Your task to perform on an android device: turn off location history Image 0: 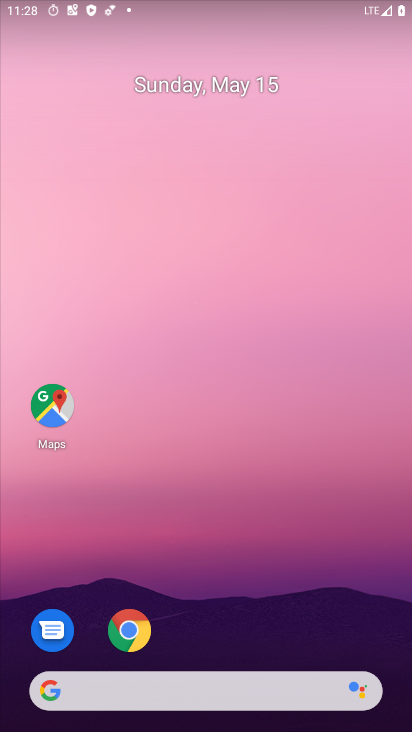
Step 0: drag from (222, 610) to (328, 100)
Your task to perform on an android device: turn off location history Image 1: 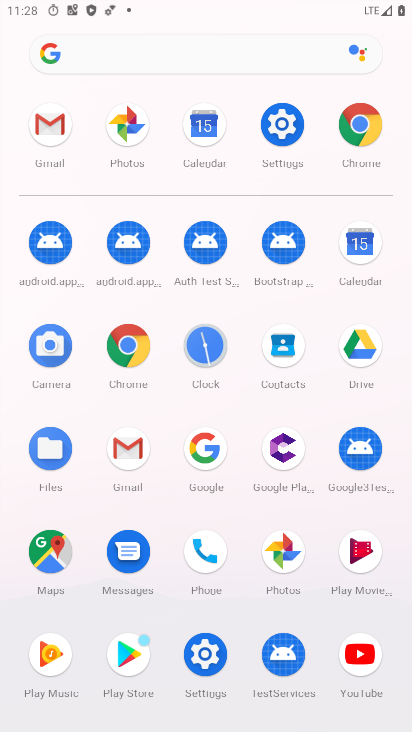
Step 1: click (286, 138)
Your task to perform on an android device: turn off location history Image 2: 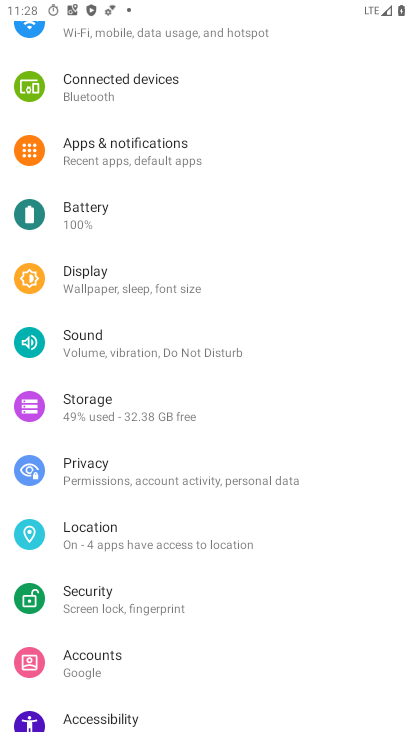
Step 2: click (127, 539)
Your task to perform on an android device: turn off location history Image 3: 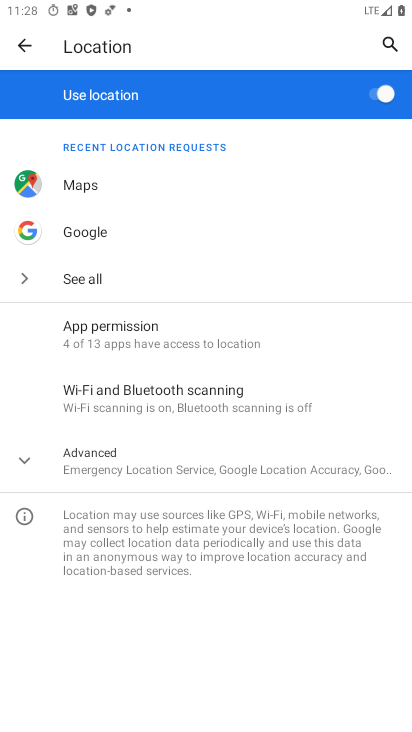
Step 3: click (110, 467)
Your task to perform on an android device: turn off location history Image 4: 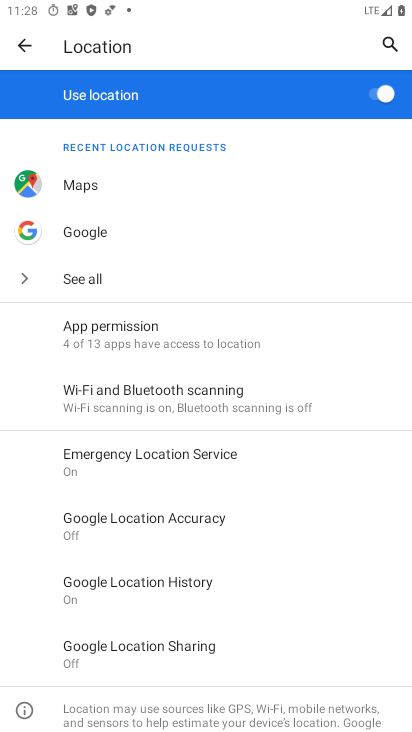
Step 4: click (170, 580)
Your task to perform on an android device: turn off location history Image 5: 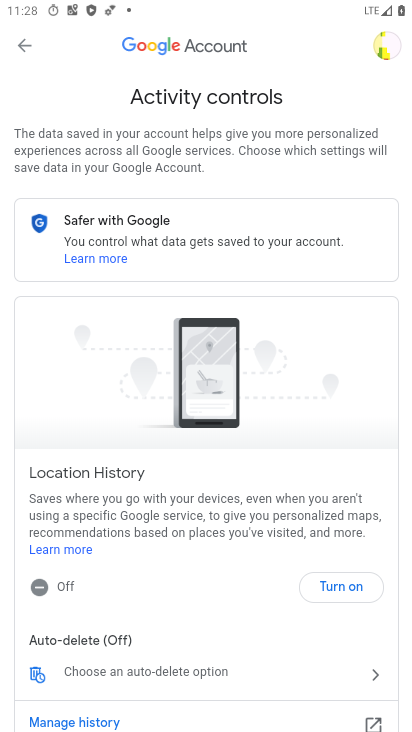
Step 5: task complete